Your task to perform on an android device: turn on priority inbox in the gmail app Image 0: 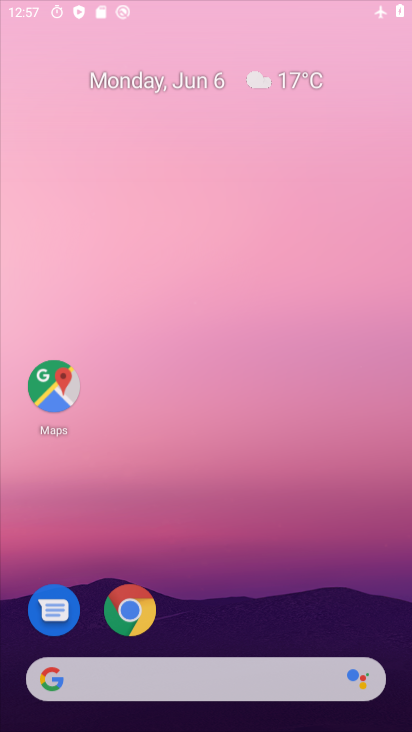
Step 0: click (230, 40)
Your task to perform on an android device: turn on priority inbox in the gmail app Image 1: 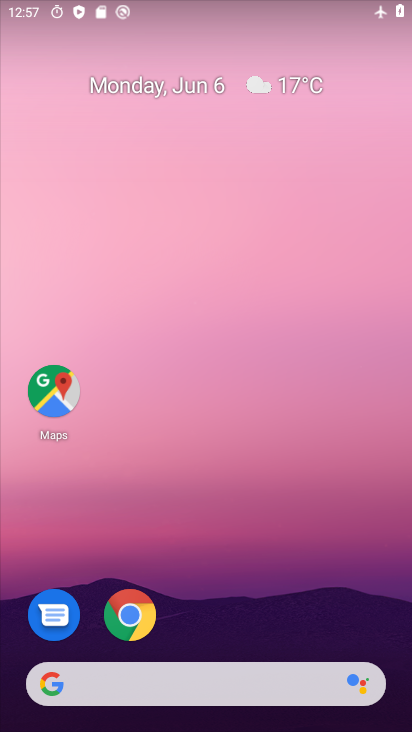
Step 1: drag from (181, 640) to (245, 136)
Your task to perform on an android device: turn on priority inbox in the gmail app Image 2: 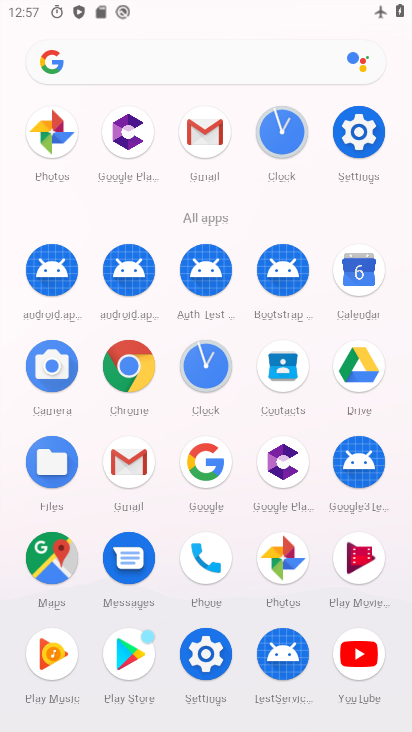
Step 2: click (137, 461)
Your task to perform on an android device: turn on priority inbox in the gmail app Image 3: 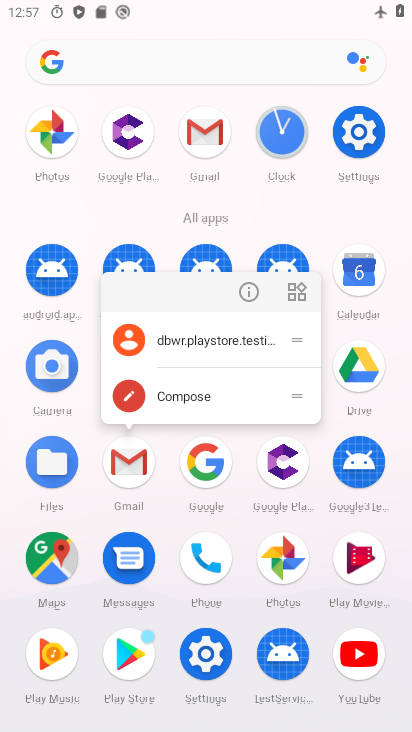
Step 3: click (245, 297)
Your task to perform on an android device: turn on priority inbox in the gmail app Image 4: 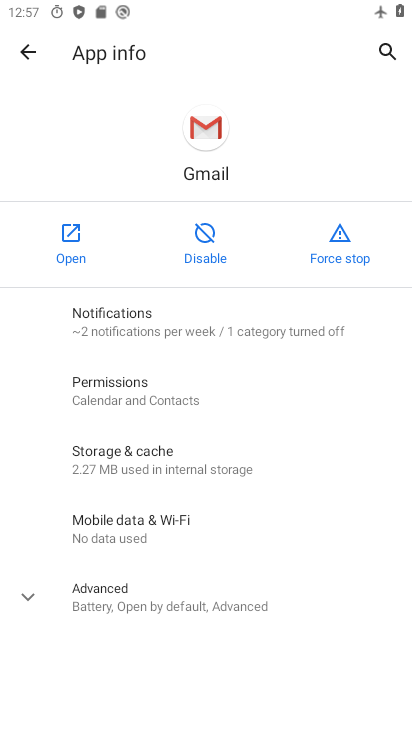
Step 4: click (64, 239)
Your task to perform on an android device: turn on priority inbox in the gmail app Image 5: 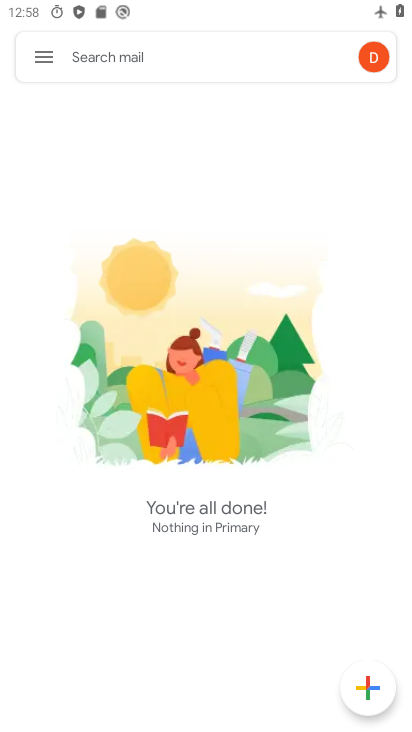
Step 5: click (43, 55)
Your task to perform on an android device: turn on priority inbox in the gmail app Image 6: 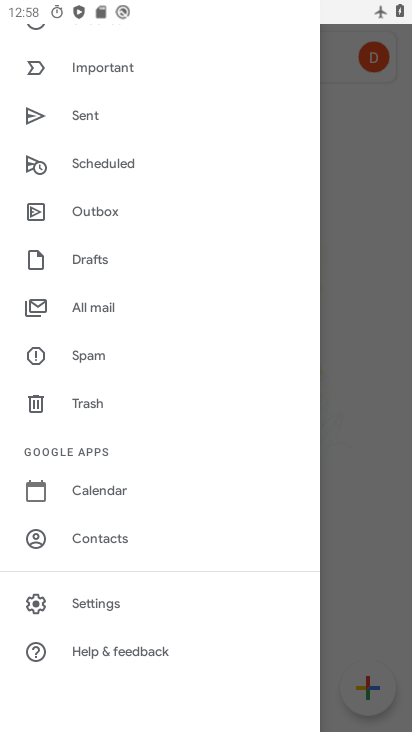
Step 6: click (141, 601)
Your task to perform on an android device: turn on priority inbox in the gmail app Image 7: 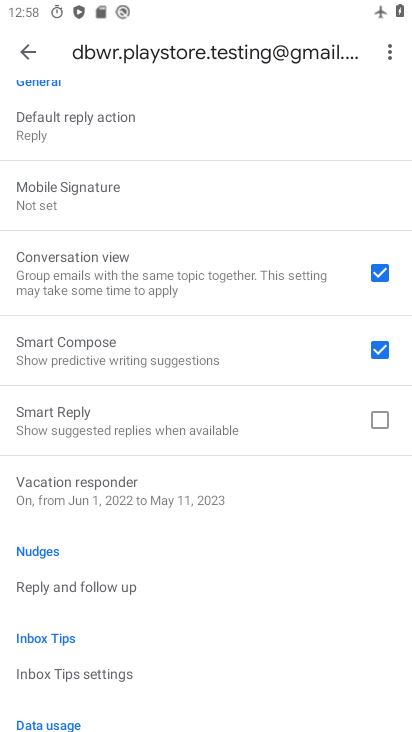
Step 7: drag from (181, 615) to (169, 198)
Your task to perform on an android device: turn on priority inbox in the gmail app Image 8: 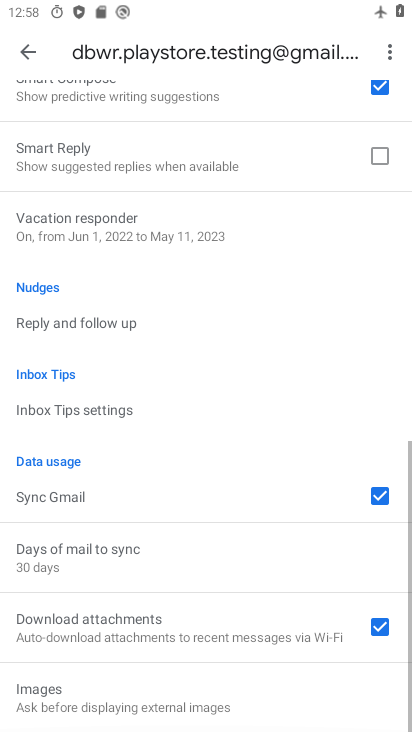
Step 8: drag from (165, 193) to (236, 593)
Your task to perform on an android device: turn on priority inbox in the gmail app Image 9: 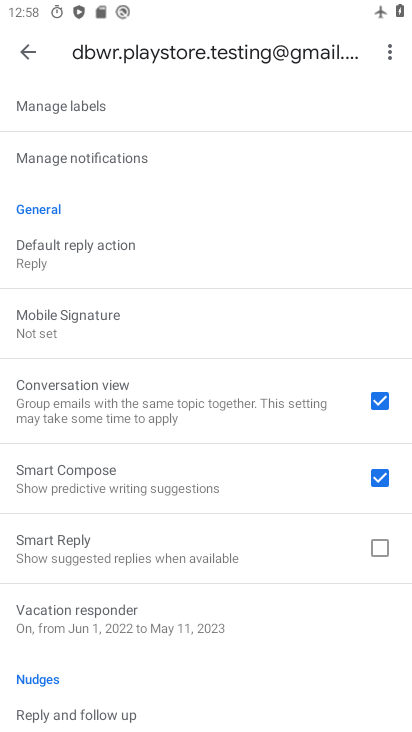
Step 9: drag from (176, 253) to (252, 575)
Your task to perform on an android device: turn on priority inbox in the gmail app Image 10: 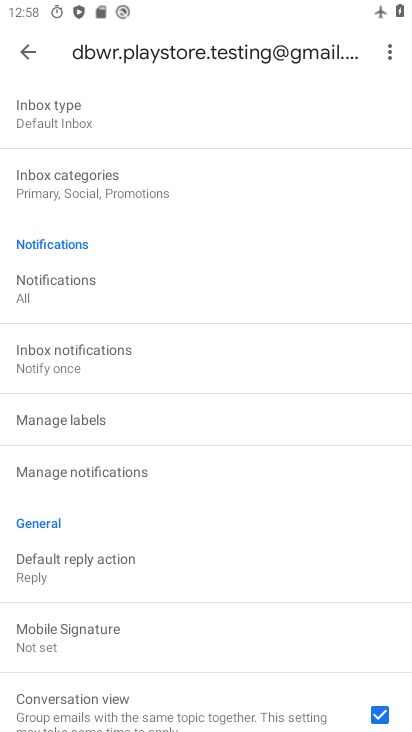
Step 10: drag from (244, 248) to (281, 684)
Your task to perform on an android device: turn on priority inbox in the gmail app Image 11: 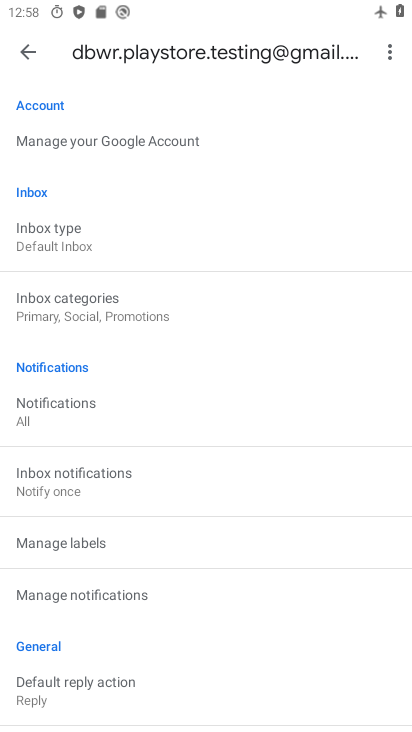
Step 11: drag from (201, 247) to (263, 562)
Your task to perform on an android device: turn on priority inbox in the gmail app Image 12: 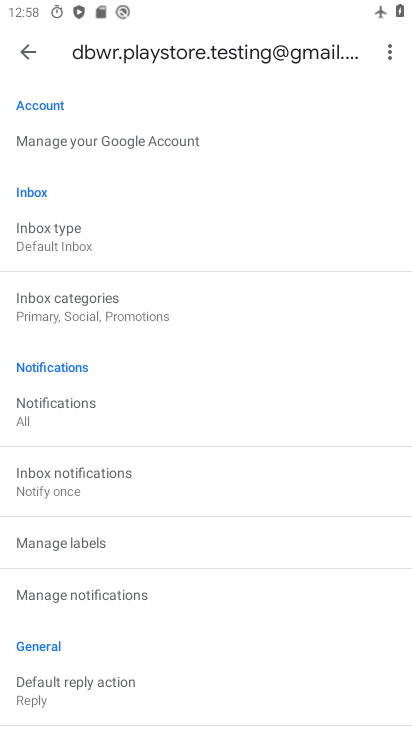
Step 12: drag from (228, 607) to (267, 190)
Your task to perform on an android device: turn on priority inbox in the gmail app Image 13: 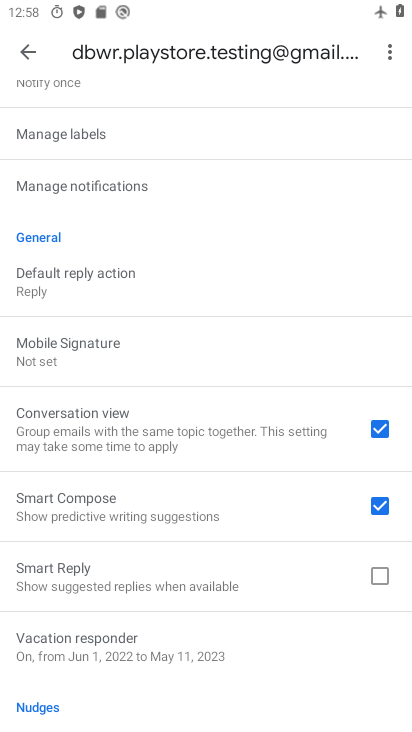
Step 13: drag from (155, 648) to (328, 113)
Your task to perform on an android device: turn on priority inbox in the gmail app Image 14: 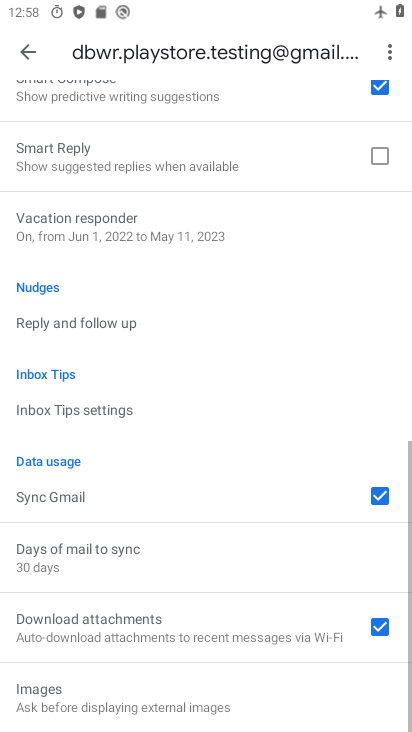
Step 14: drag from (145, 668) to (265, 127)
Your task to perform on an android device: turn on priority inbox in the gmail app Image 15: 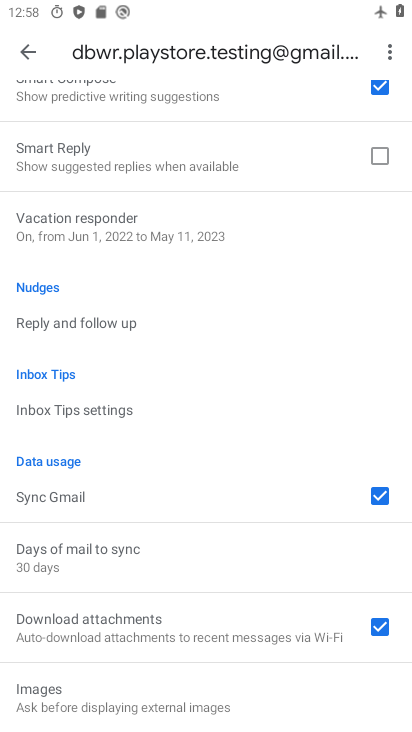
Step 15: drag from (203, 248) to (228, 729)
Your task to perform on an android device: turn on priority inbox in the gmail app Image 16: 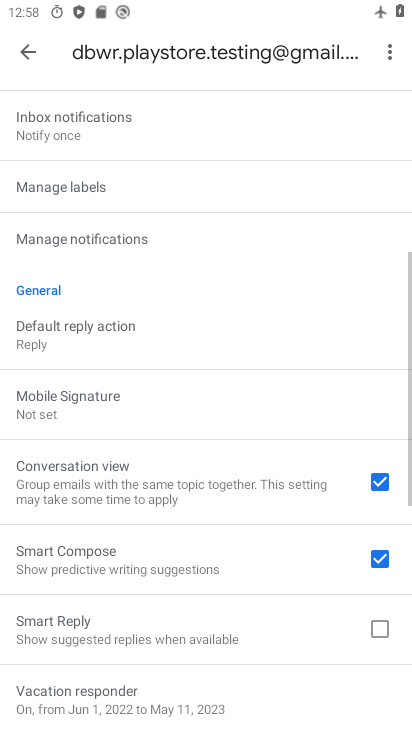
Step 16: drag from (224, 190) to (269, 644)
Your task to perform on an android device: turn on priority inbox in the gmail app Image 17: 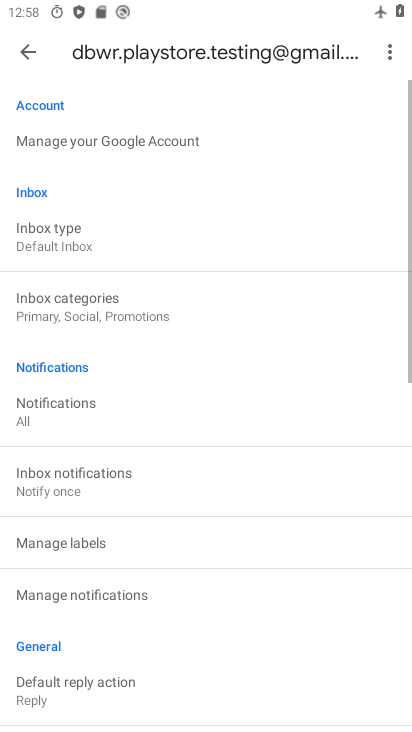
Step 17: click (107, 224)
Your task to perform on an android device: turn on priority inbox in the gmail app Image 18: 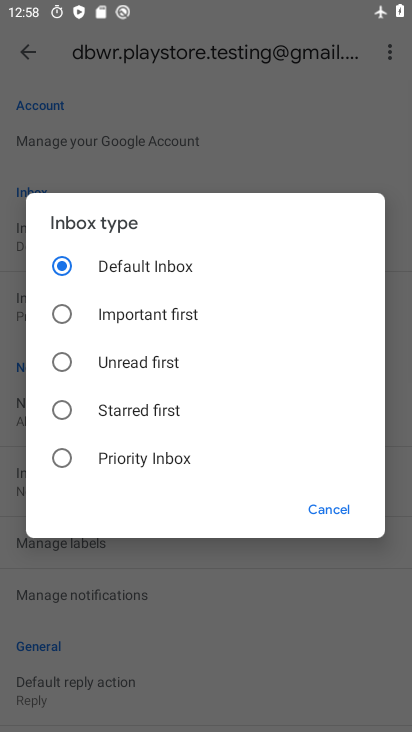
Step 18: click (127, 455)
Your task to perform on an android device: turn on priority inbox in the gmail app Image 19: 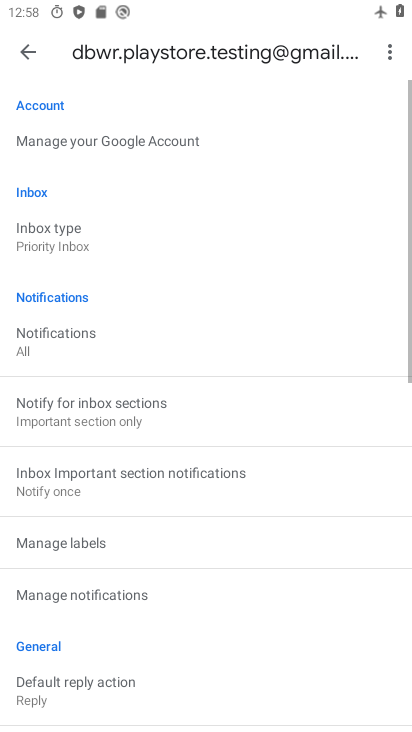
Step 19: task complete